Your task to perform on an android device: Open the calendar and show me this week's events Image 0: 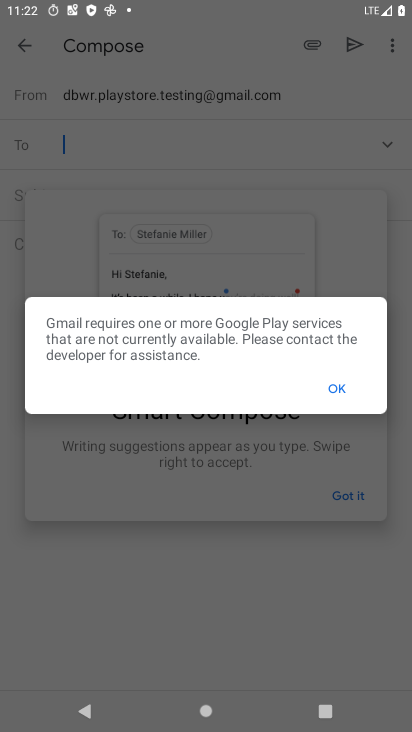
Step 0: press home button
Your task to perform on an android device: Open the calendar and show me this week's events Image 1: 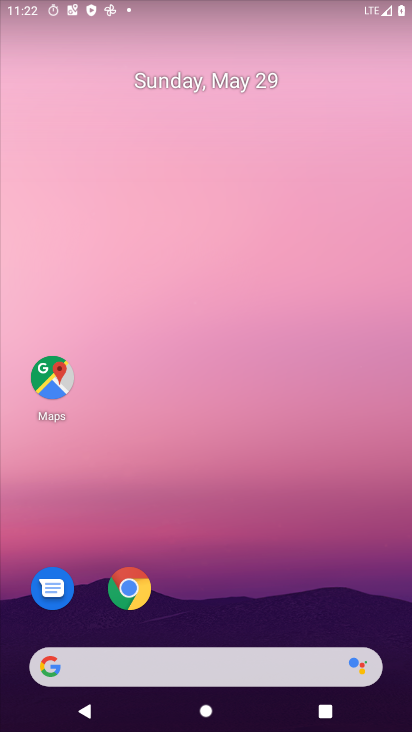
Step 1: click (205, 174)
Your task to perform on an android device: Open the calendar and show me this week's events Image 2: 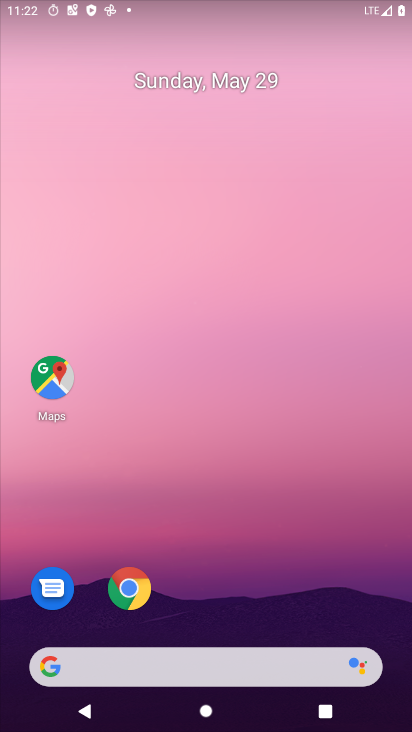
Step 2: drag from (245, 598) to (221, 148)
Your task to perform on an android device: Open the calendar and show me this week's events Image 3: 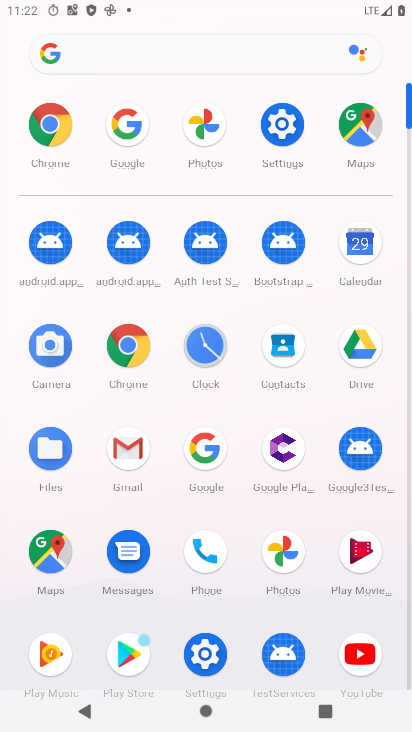
Step 3: click (380, 261)
Your task to perform on an android device: Open the calendar and show me this week's events Image 4: 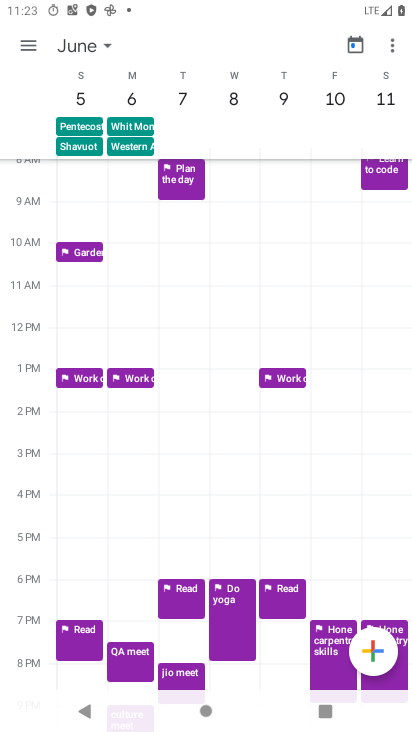
Step 4: task complete